Your task to perform on an android device: Open Google Image 0: 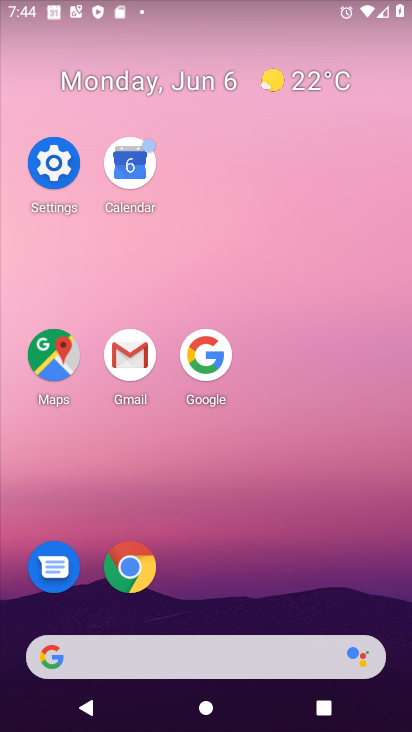
Step 0: click (201, 356)
Your task to perform on an android device: Open Google Image 1: 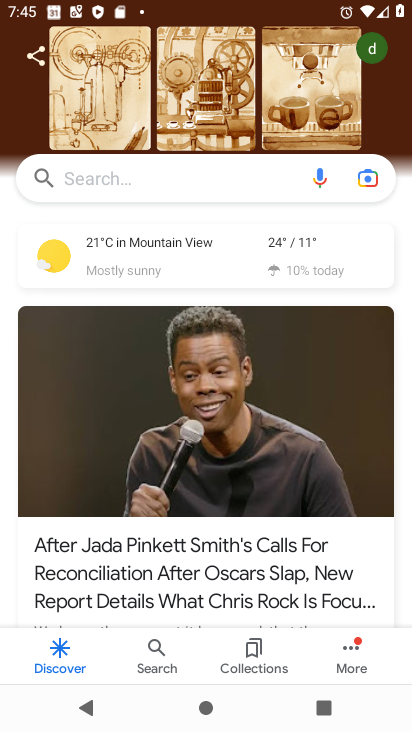
Step 1: task complete